Your task to perform on an android device: uninstall "Adobe Acrobat Reader: Edit PDF" Image 0: 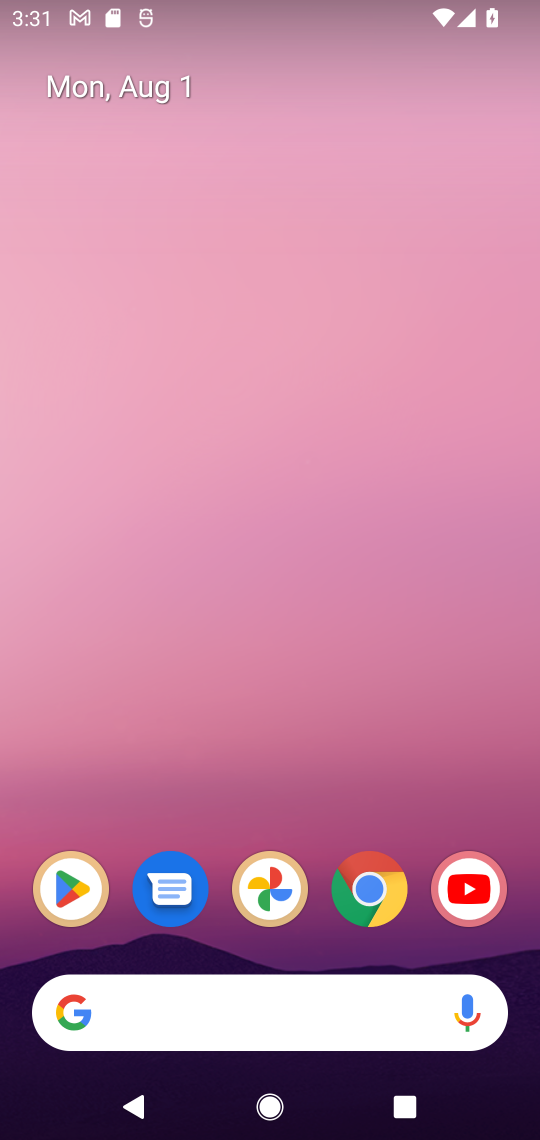
Step 0: click (71, 887)
Your task to perform on an android device: uninstall "Adobe Acrobat Reader: Edit PDF" Image 1: 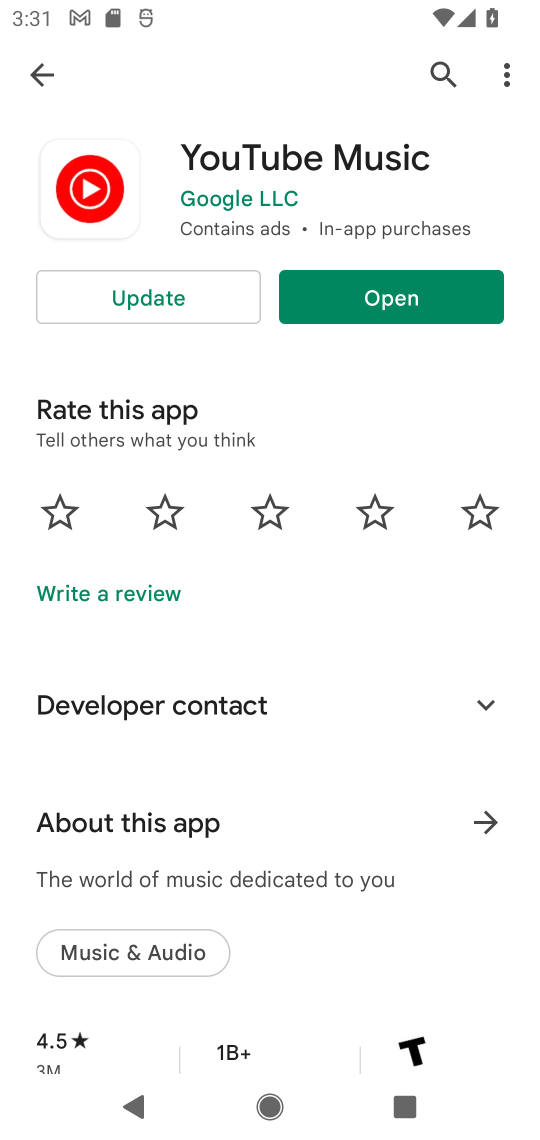
Step 1: click (452, 76)
Your task to perform on an android device: uninstall "Adobe Acrobat Reader: Edit PDF" Image 2: 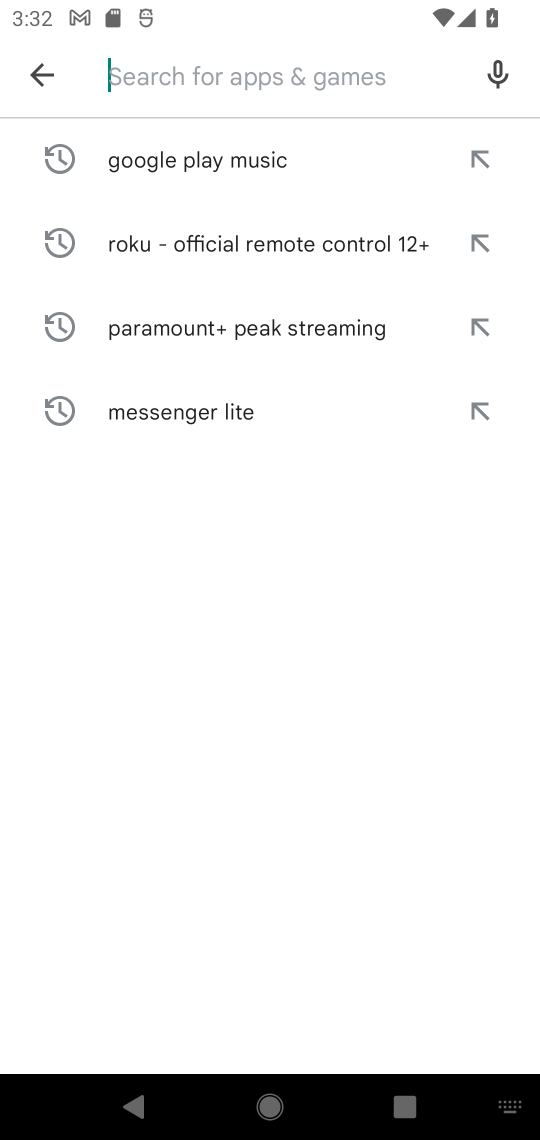
Step 2: type "Adobe Acrobat Reader: Edit PDF"
Your task to perform on an android device: uninstall "Adobe Acrobat Reader: Edit PDF" Image 3: 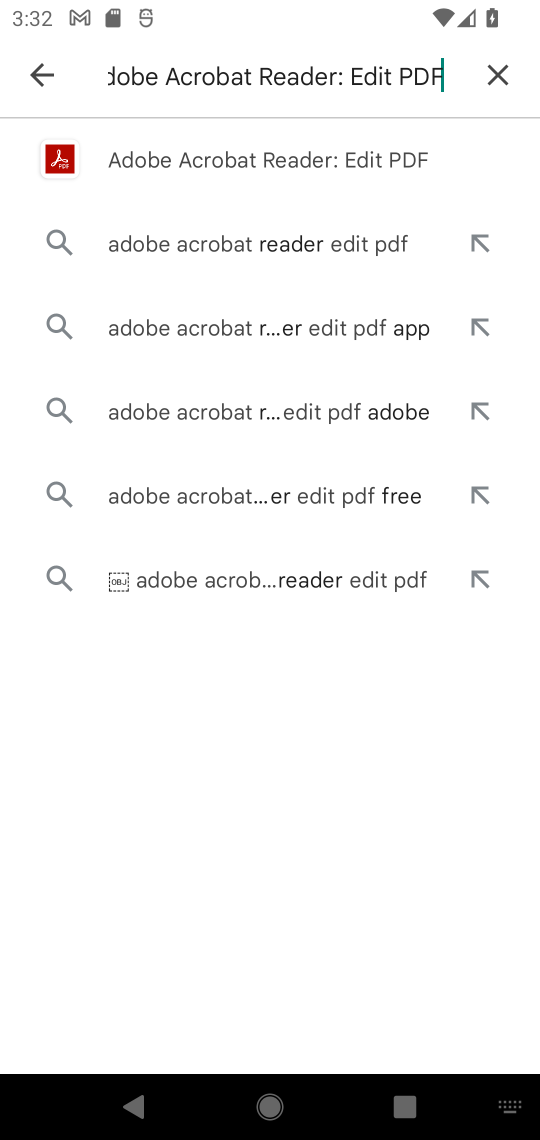
Step 3: click (225, 167)
Your task to perform on an android device: uninstall "Adobe Acrobat Reader: Edit PDF" Image 4: 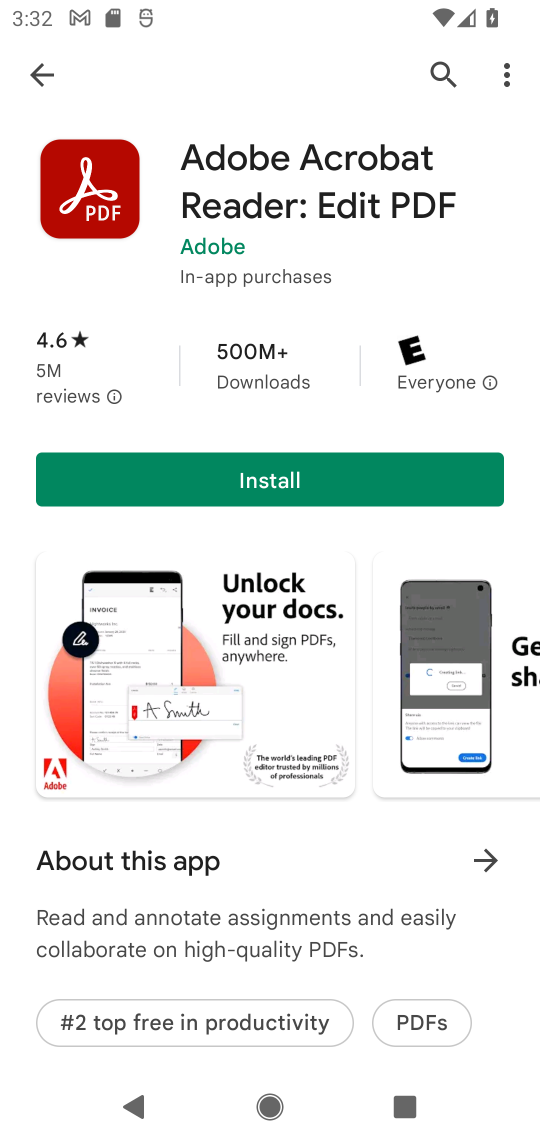
Step 4: task complete